Your task to perform on an android device: Go to settings Image 0: 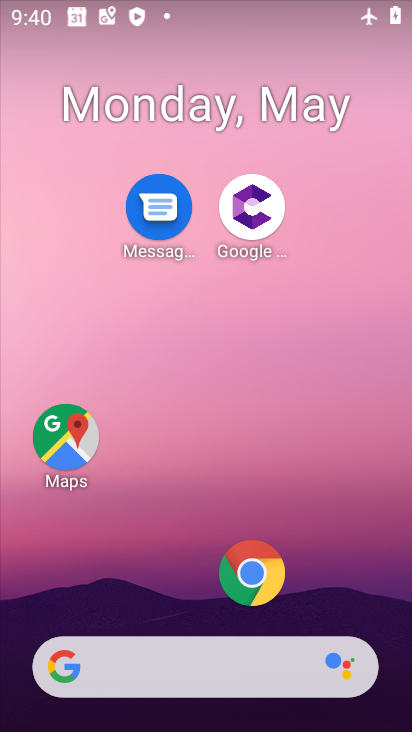
Step 0: drag from (180, 691) to (309, 51)
Your task to perform on an android device: Go to settings Image 1: 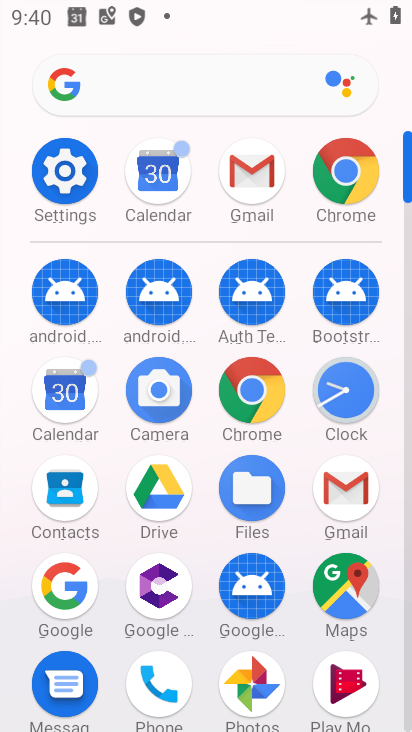
Step 1: click (83, 194)
Your task to perform on an android device: Go to settings Image 2: 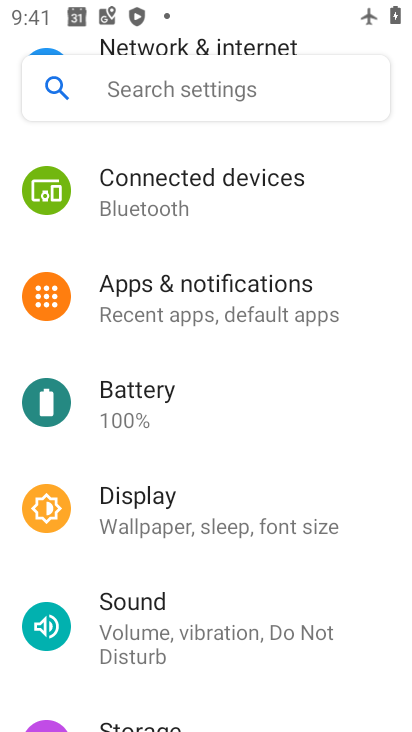
Step 2: task complete